Your task to perform on an android device: turn off data saver in the chrome app Image 0: 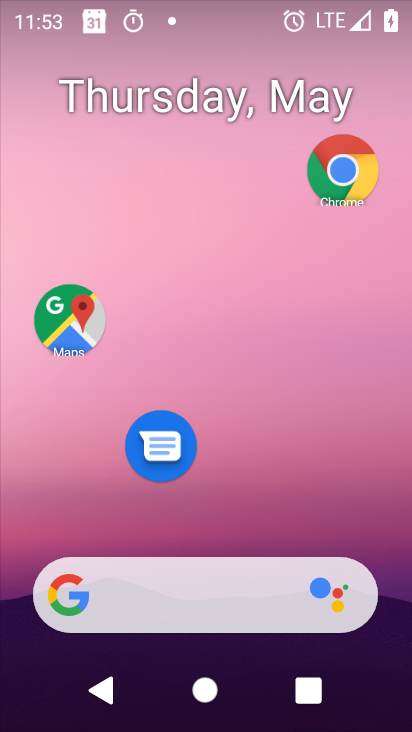
Step 0: drag from (234, 581) to (300, 7)
Your task to perform on an android device: turn off data saver in the chrome app Image 1: 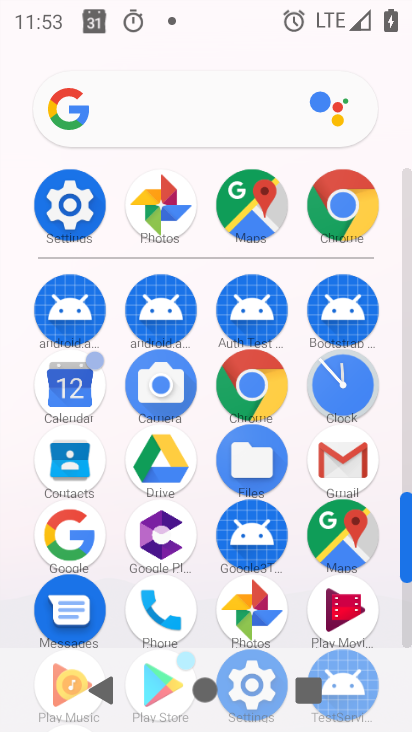
Step 1: click (245, 378)
Your task to perform on an android device: turn off data saver in the chrome app Image 2: 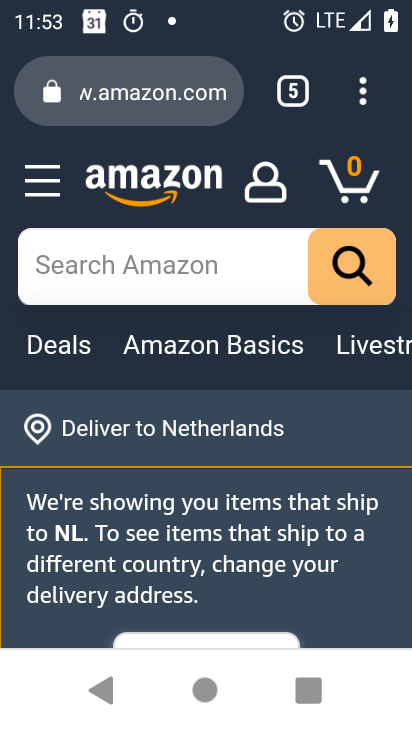
Step 2: click (368, 88)
Your task to perform on an android device: turn off data saver in the chrome app Image 3: 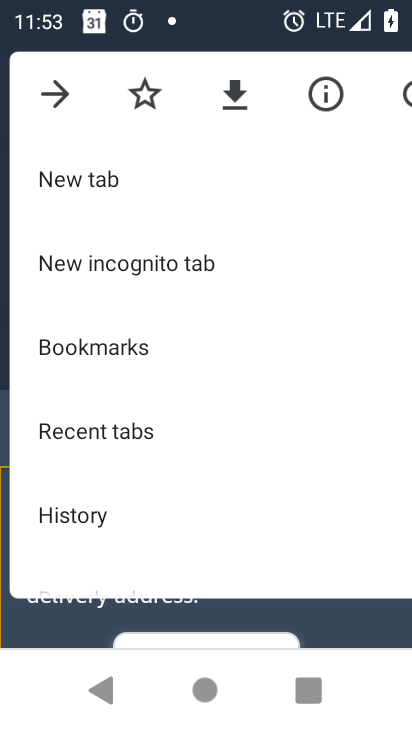
Step 3: drag from (261, 533) to (262, 45)
Your task to perform on an android device: turn off data saver in the chrome app Image 4: 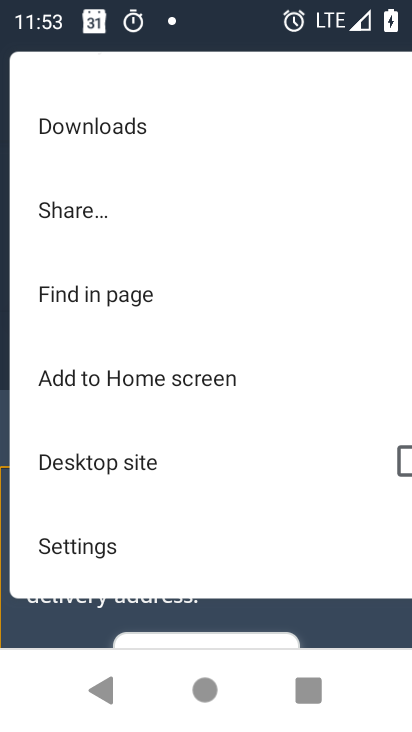
Step 4: click (146, 549)
Your task to perform on an android device: turn off data saver in the chrome app Image 5: 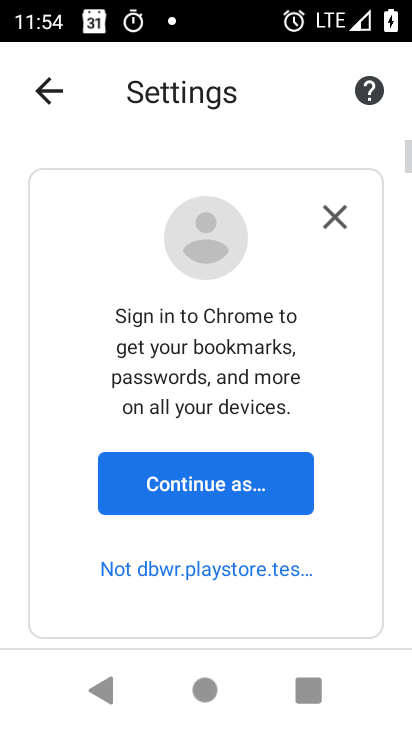
Step 5: drag from (244, 598) to (282, 54)
Your task to perform on an android device: turn off data saver in the chrome app Image 6: 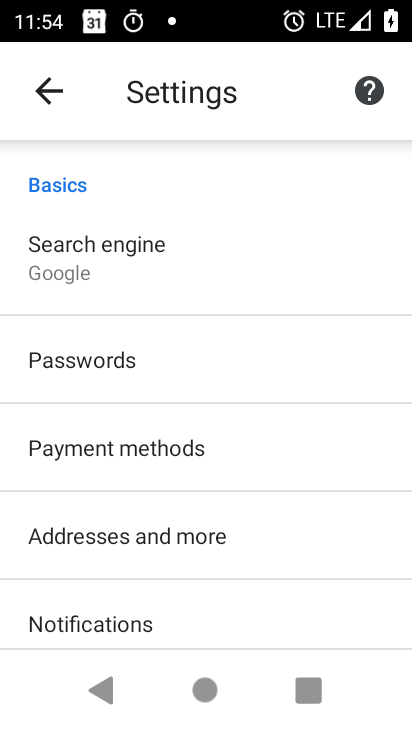
Step 6: drag from (253, 587) to (292, 109)
Your task to perform on an android device: turn off data saver in the chrome app Image 7: 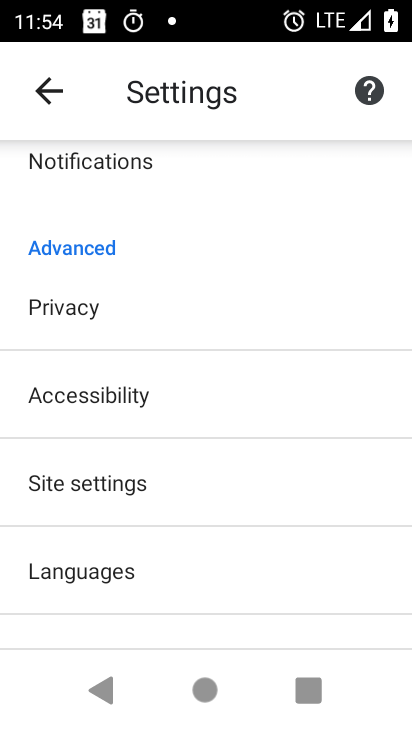
Step 7: click (193, 498)
Your task to perform on an android device: turn off data saver in the chrome app Image 8: 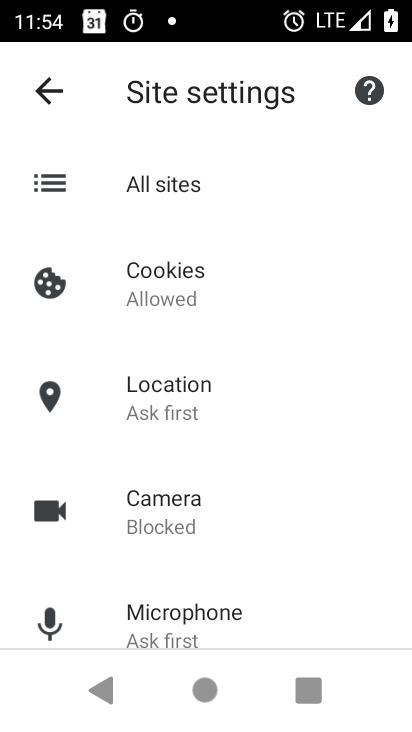
Step 8: drag from (231, 644) to (275, 176)
Your task to perform on an android device: turn off data saver in the chrome app Image 9: 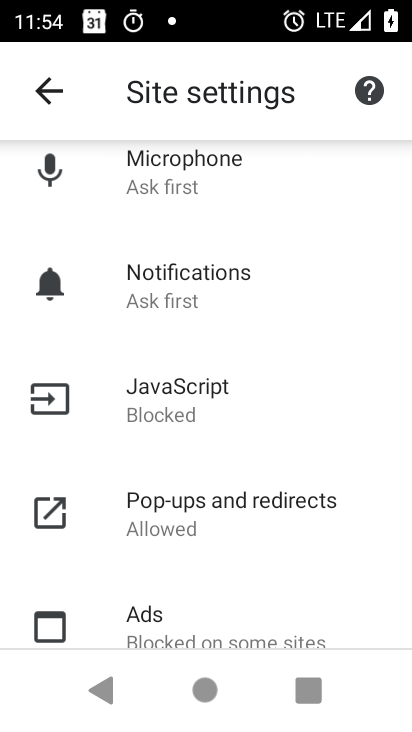
Step 9: press back button
Your task to perform on an android device: turn off data saver in the chrome app Image 10: 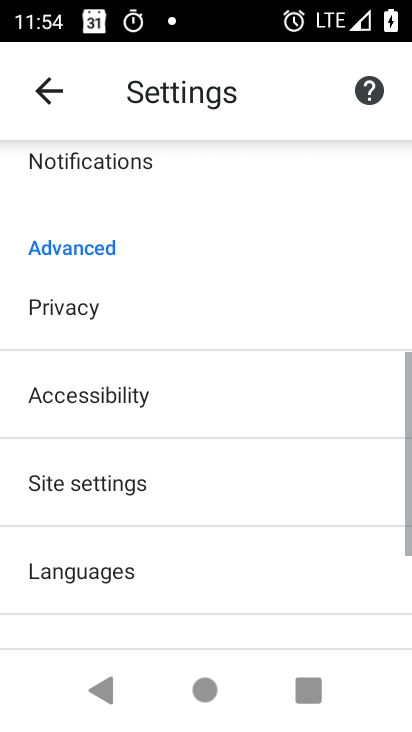
Step 10: drag from (240, 598) to (272, 155)
Your task to perform on an android device: turn off data saver in the chrome app Image 11: 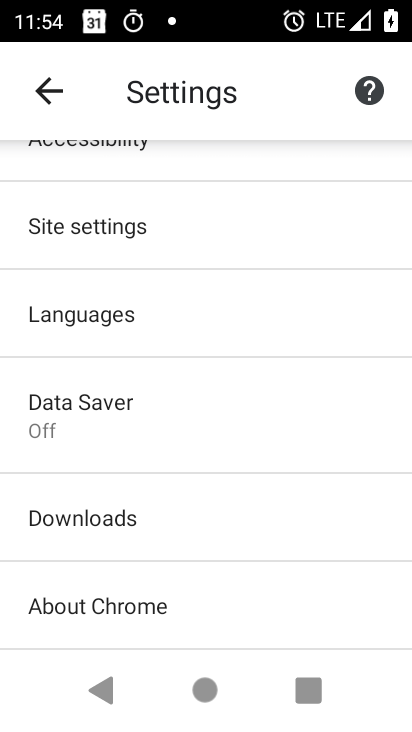
Step 11: click (134, 391)
Your task to perform on an android device: turn off data saver in the chrome app Image 12: 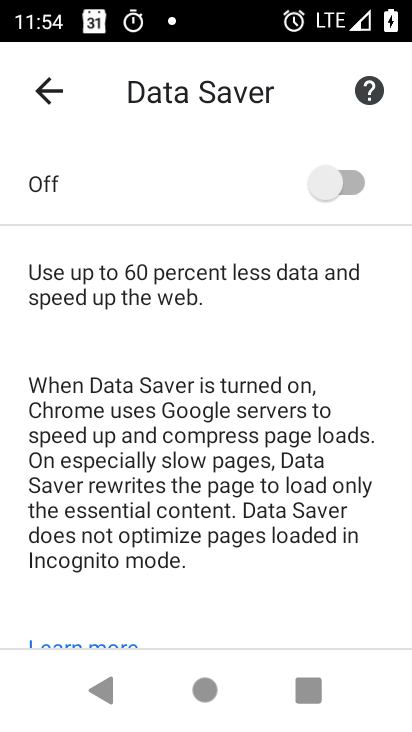
Step 12: task complete